Your task to perform on an android device: Open calendar and show me the fourth week of next month Image 0: 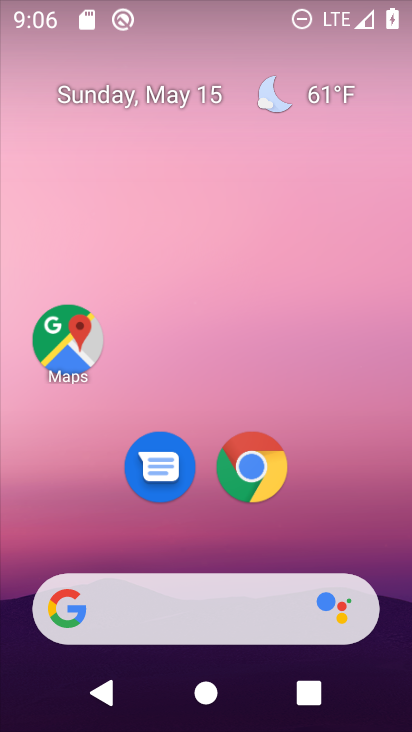
Step 0: click (144, 104)
Your task to perform on an android device: Open calendar and show me the fourth week of next month Image 1: 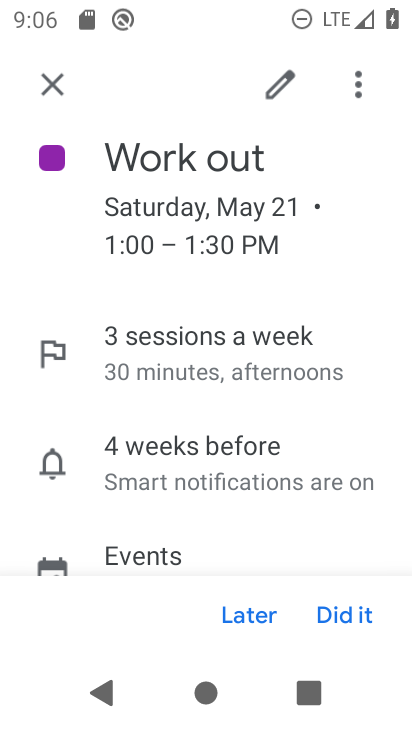
Step 1: press home button
Your task to perform on an android device: Open calendar and show me the fourth week of next month Image 2: 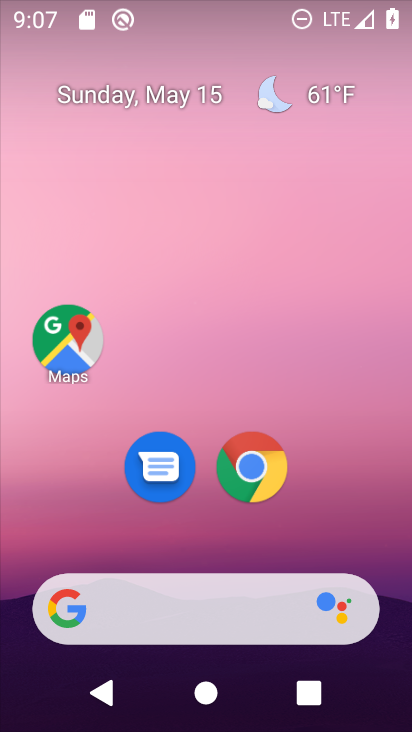
Step 2: click (111, 97)
Your task to perform on an android device: Open calendar and show me the fourth week of next month Image 3: 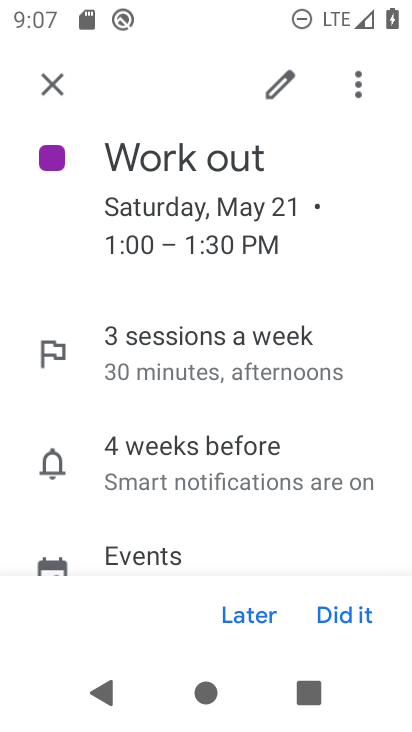
Step 3: click (77, 79)
Your task to perform on an android device: Open calendar and show me the fourth week of next month Image 4: 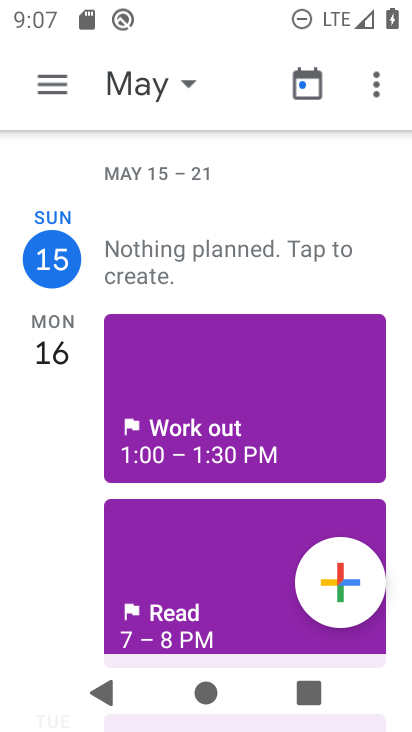
Step 4: click (152, 101)
Your task to perform on an android device: Open calendar and show me the fourth week of next month Image 5: 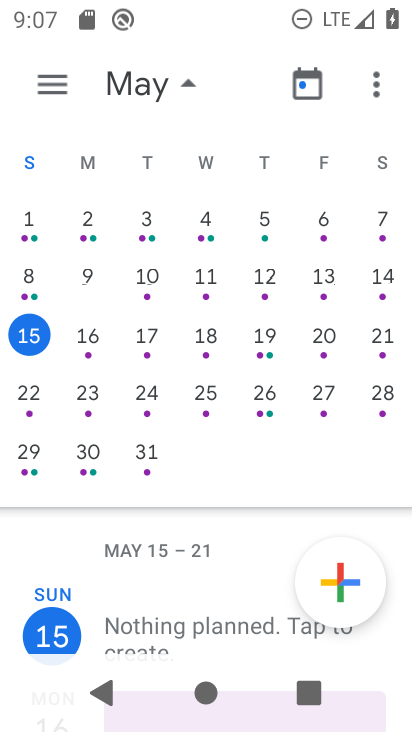
Step 5: drag from (367, 452) to (43, 534)
Your task to perform on an android device: Open calendar and show me the fourth week of next month Image 6: 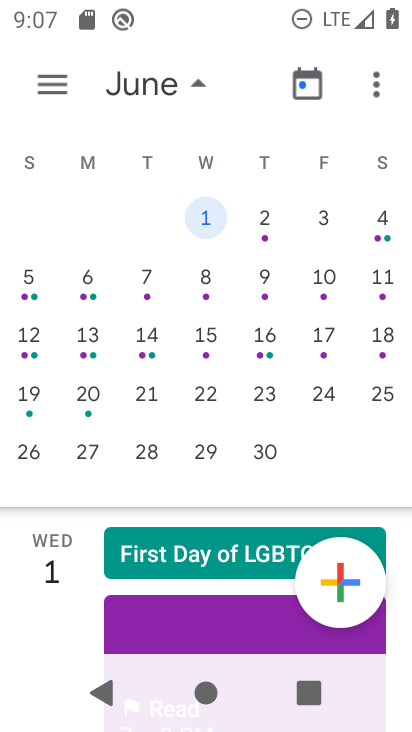
Step 6: click (270, 390)
Your task to perform on an android device: Open calendar and show me the fourth week of next month Image 7: 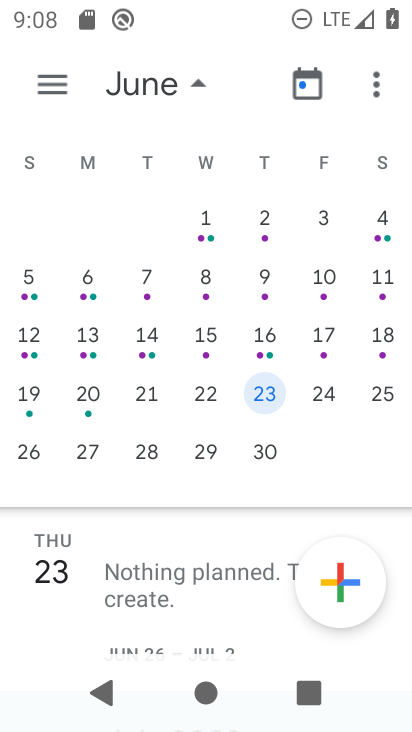
Step 7: task complete